Your task to perform on an android device: Go to internet settings Image 0: 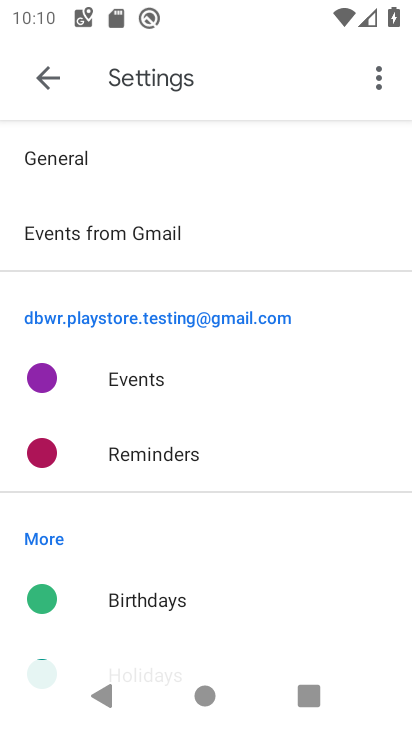
Step 0: press back button
Your task to perform on an android device: Go to internet settings Image 1: 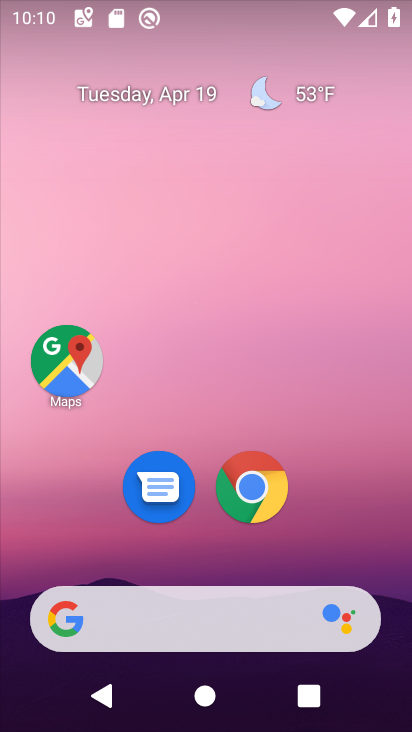
Step 1: drag from (393, 649) to (227, 9)
Your task to perform on an android device: Go to internet settings Image 2: 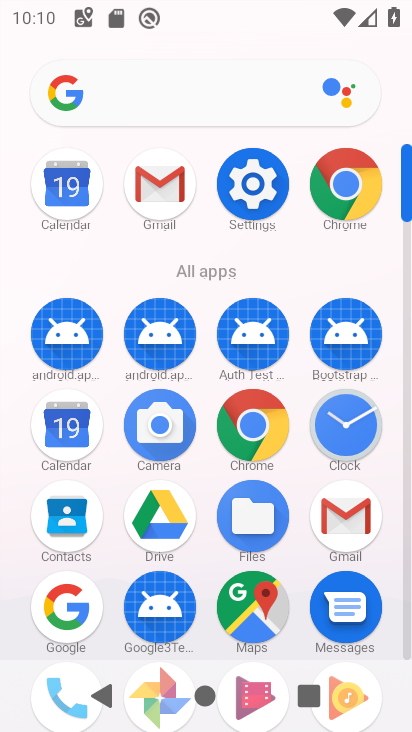
Step 2: drag from (20, 607) to (4, 310)
Your task to perform on an android device: Go to internet settings Image 3: 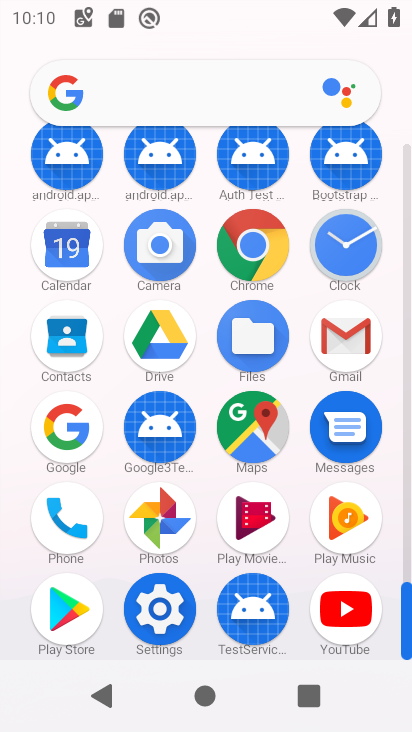
Step 3: click (157, 610)
Your task to perform on an android device: Go to internet settings Image 4: 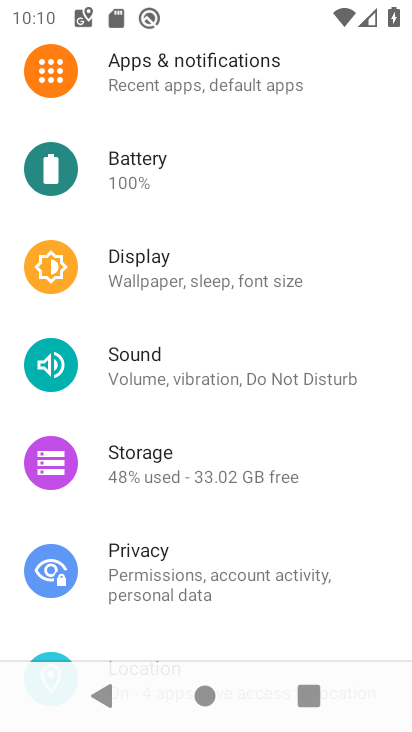
Step 4: drag from (379, 130) to (358, 505)
Your task to perform on an android device: Go to internet settings Image 5: 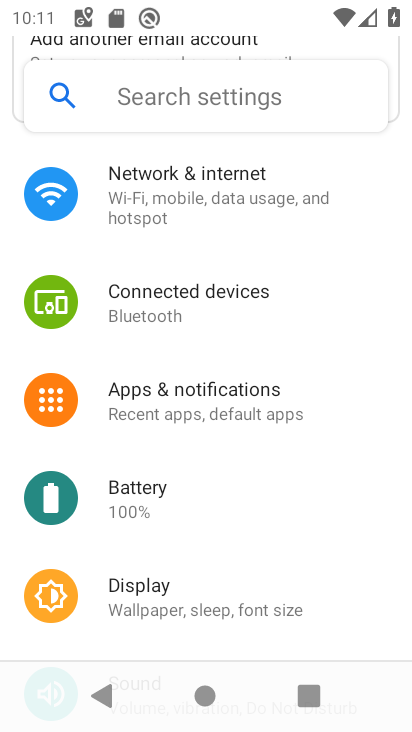
Step 5: click (202, 190)
Your task to perform on an android device: Go to internet settings Image 6: 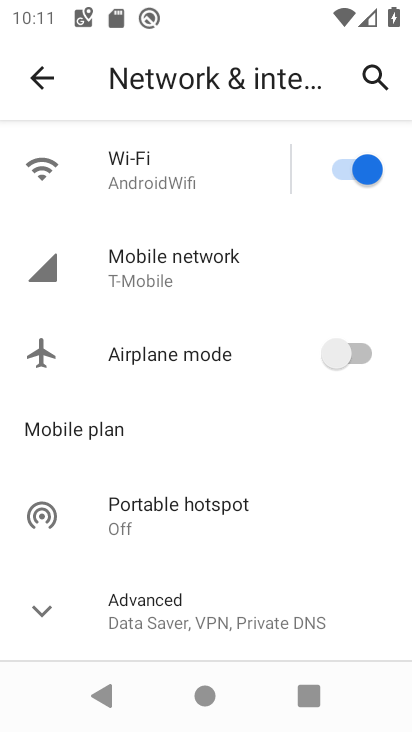
Step 6: click (175, 258)
Your task to perform on an android device: Go to internet settings Image 7: 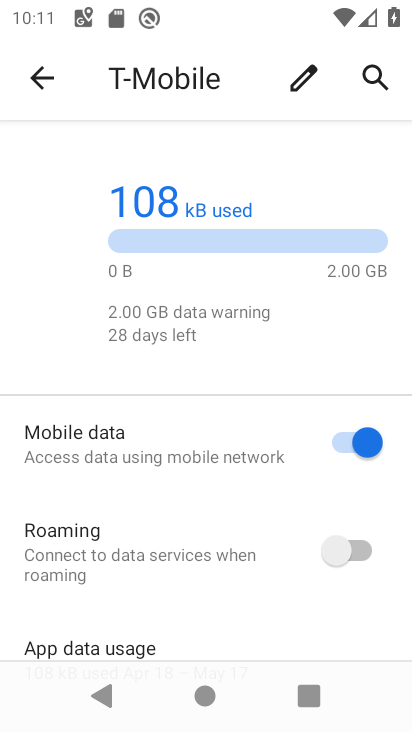
Step 7: task complete